Your task to perform on an android device: Open network settings Image 0: 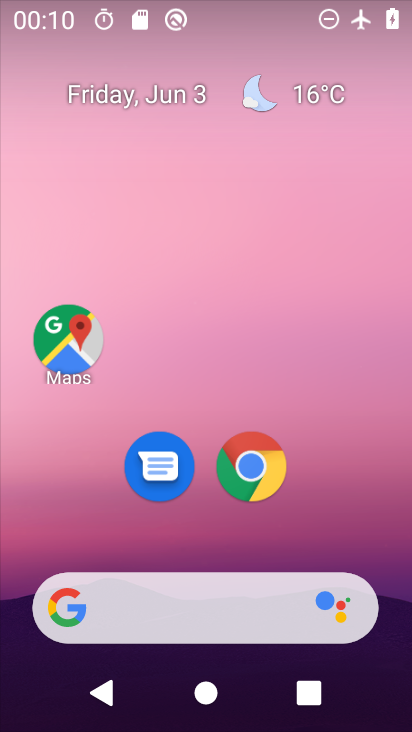
Step 0: drag from (191, 555) to (176, 216)
Your task to perform on an android device: Open network settings Image 1: 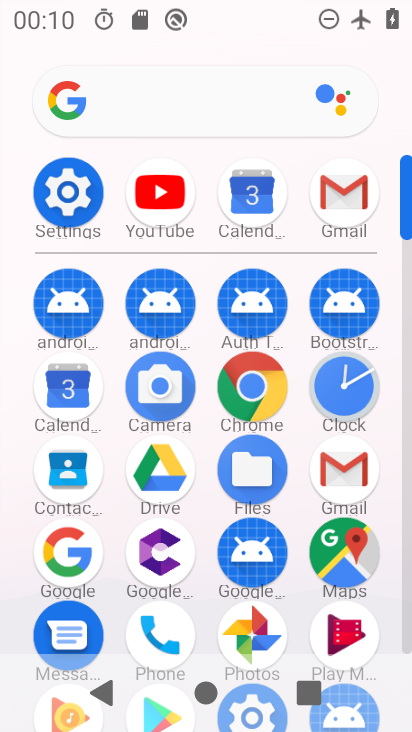
Step 1: click (86, 188)
Your task to perform on an android device: Open network settings Image 2: 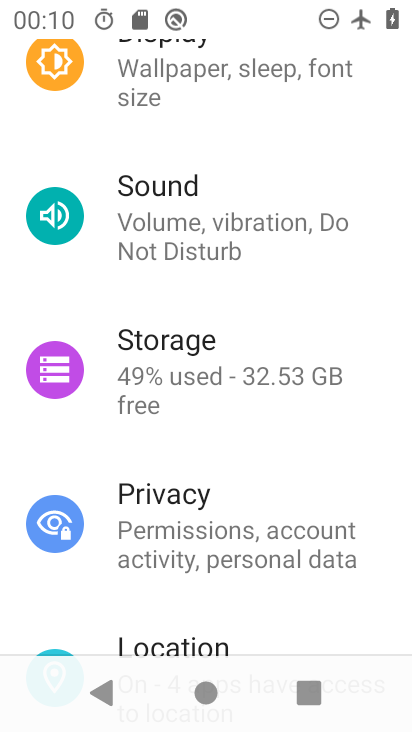
Step 2: drag from (251, 221) to (278, 470)
Your task to perform on an android device: Open network settings Image 3: 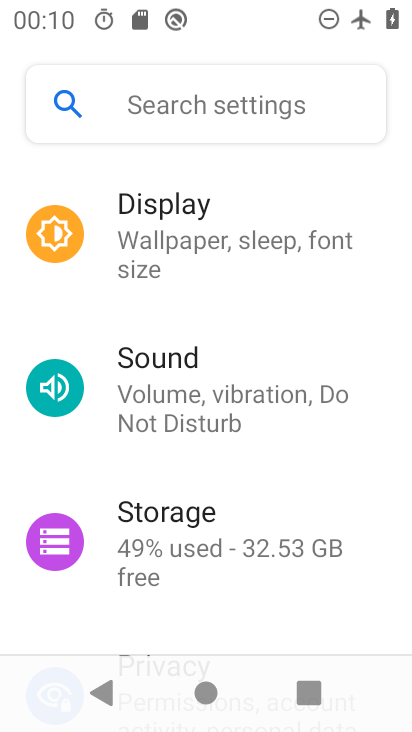
Step 3: drag from (249, 213) to (292, 466)
Your task to perform on an android device: Open network settings Image 4: 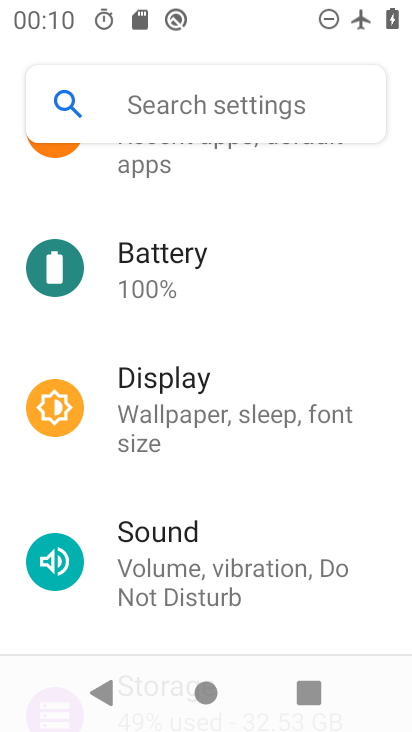
Step 4: drag from (255, 225) to (279, 410)
Your task to perform on an android device: Open network settings Image 5: 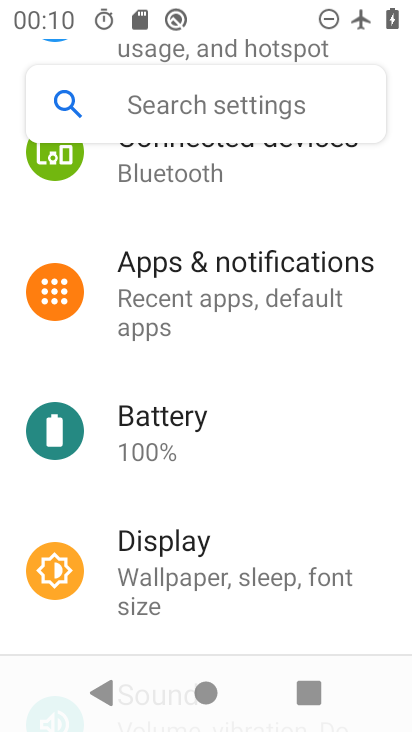
Step 5: drag from (234, 266) to (263, 498)
Your task to perform on an android device: Open network settings Image 6: 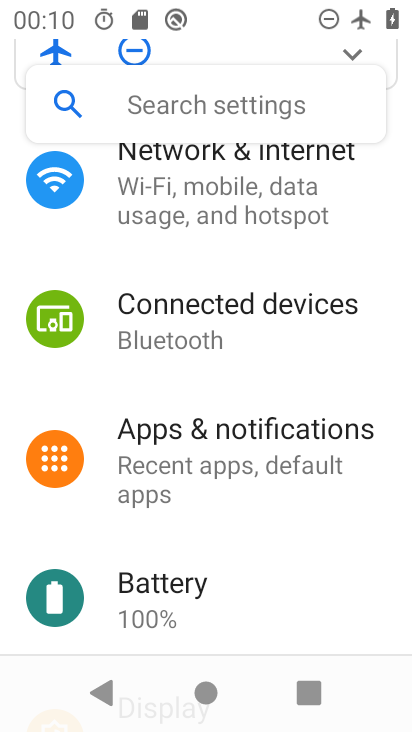
Step 6: drag from (222, 239) to (240, 508)
Your task to perform on an android device: Open network settings Image 7: 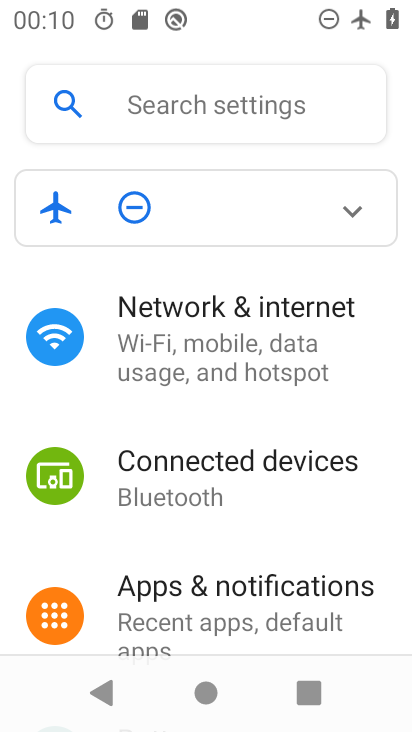
Step 7: drag from (230, 262) to (244, 559)
Your task to perform on an android device: Open network settings Image 8: 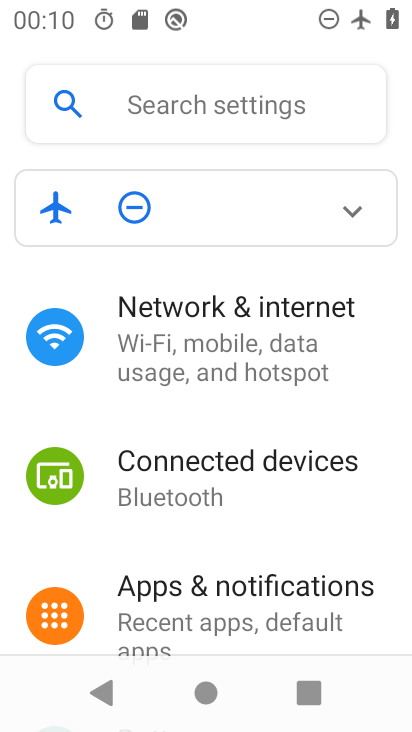
Step 8: click (210, 314)
Your task to perform on an android device: Open network settings Image 9: 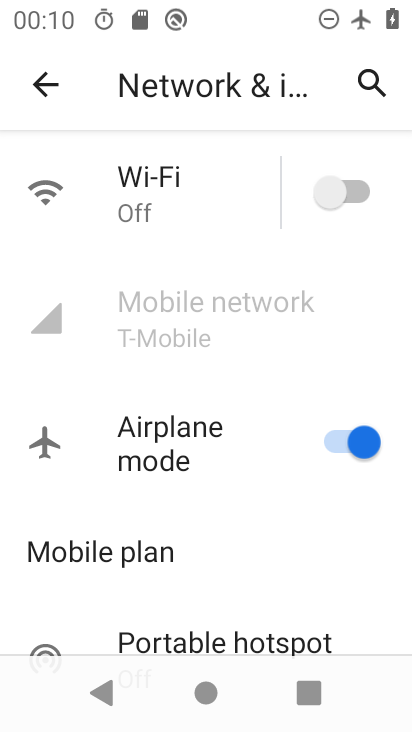
Step 9: click (210, 314)
Your task to perform on an android device: Open network settings Image 10: 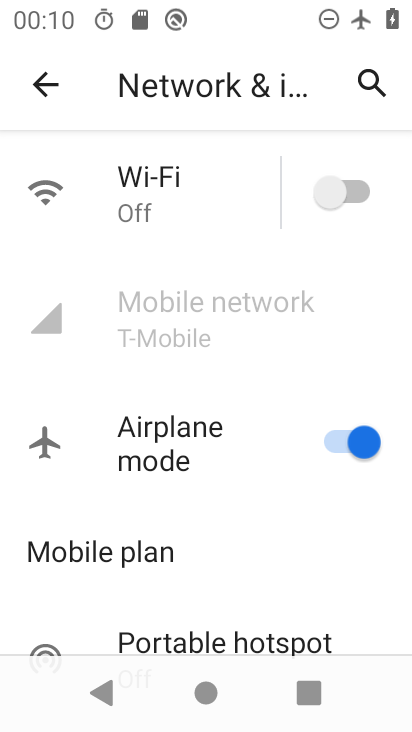
Step 10: task complete